Your task to perform on an android device: See recent photos Image 0: 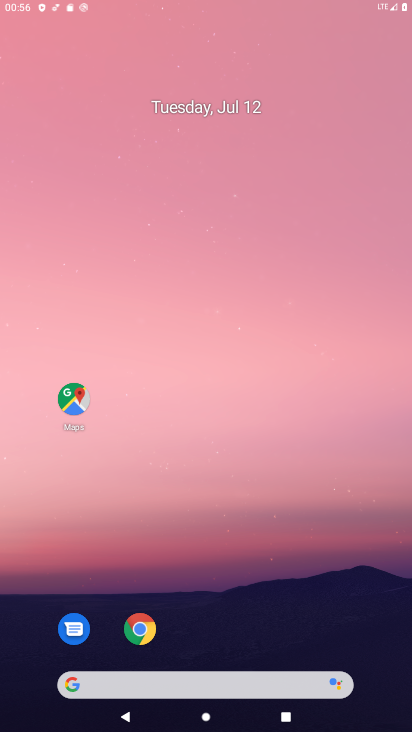
Step 0: drag from (165, 498) to (306, 63)
Your task to perform on an android device: See recent photos Image 1: 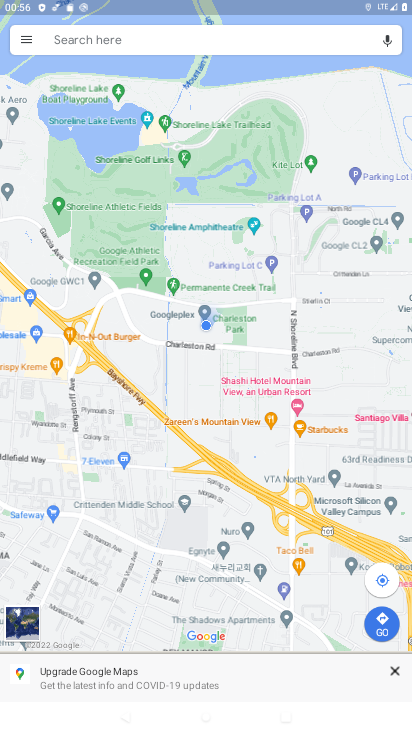
Step 1: task complete